Your task to perform on an android device: Check the weather Image 0: 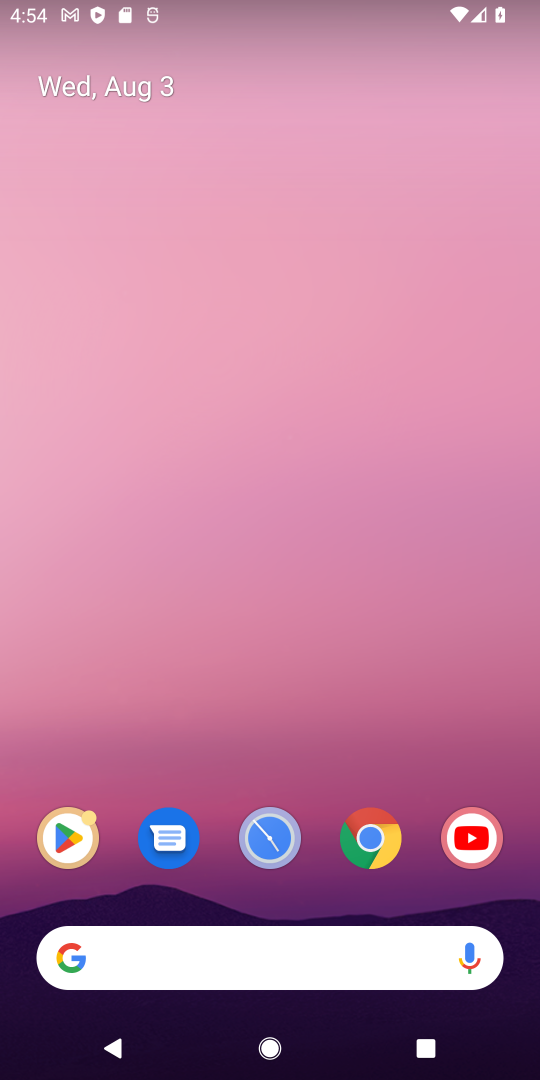
Step 0: drag from (307, 763) to (377, 45)
Your task to perform on an android device: Check the weather Image 1: 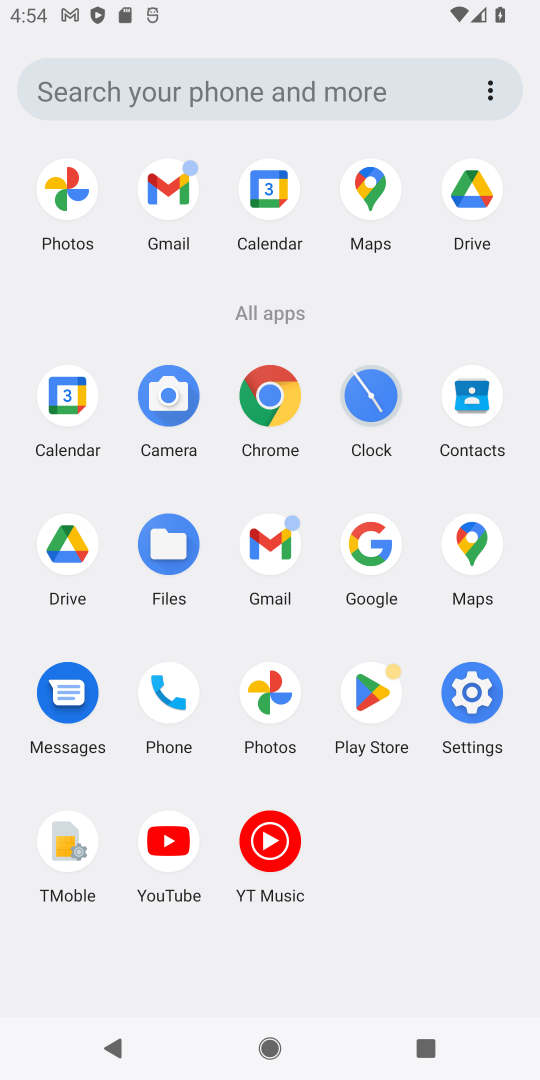
Step 1: click (372, 549)
Your task to perform on an android device: Check the weather Image 2: 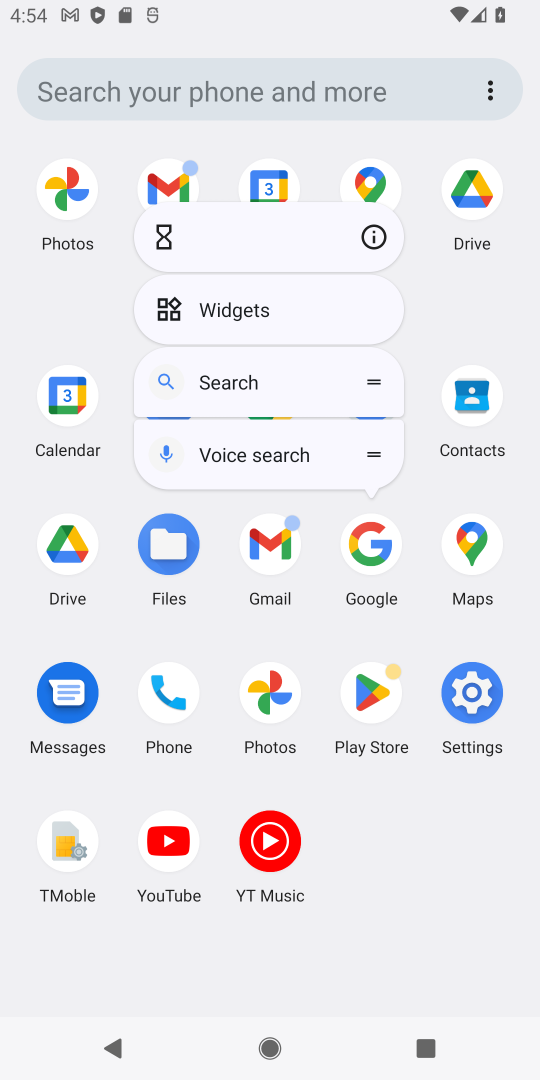
Step 2: click (372, 547)
Your task to perform on an android device: Check the weather Image 3: 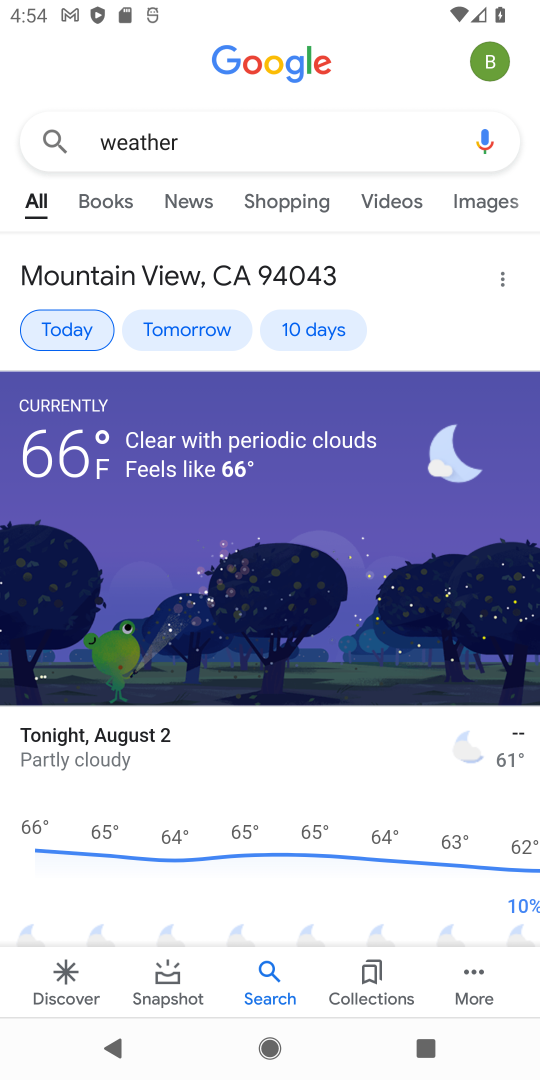
Step 3: click (87, 340)
Your task to perform on an android device: Check the weather Image 4: 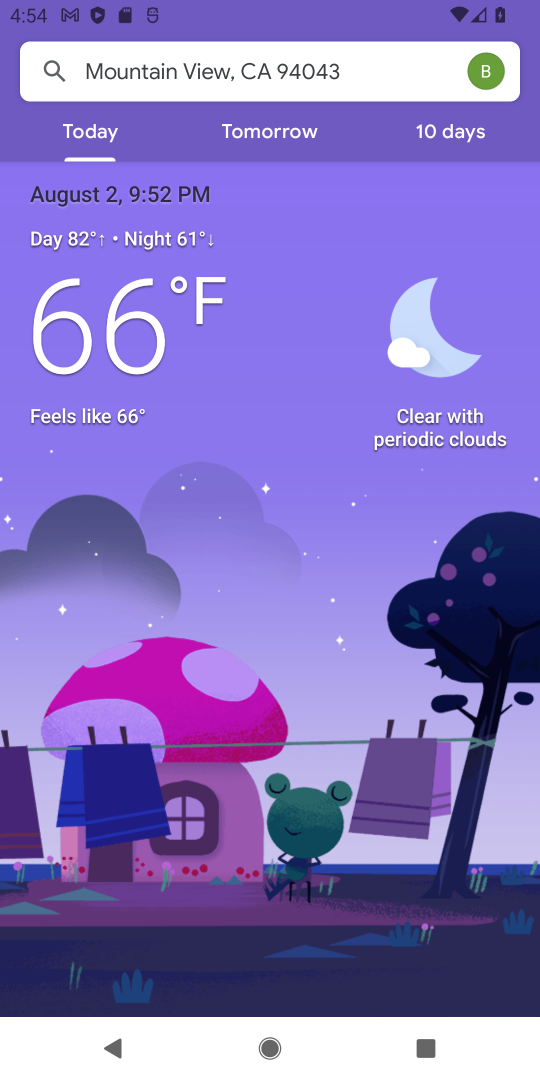
Step 4: task complete